Your task to perform on an android device: Search for Italian restaurants on Maps Image 0: 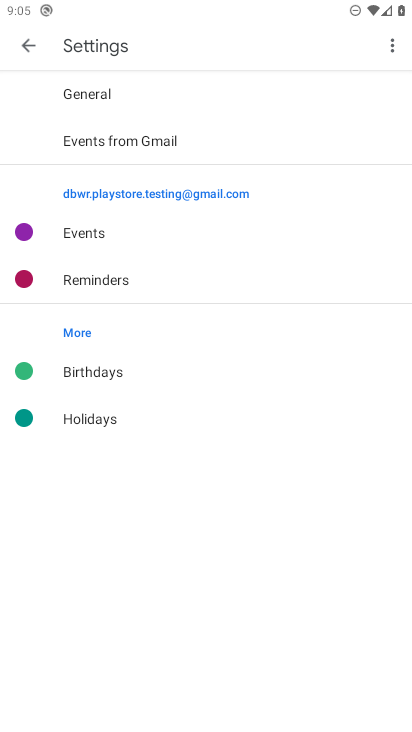
Step 0: press home button
Your task to perform on an android device: Search for Italian restaurants on Maps Image 1: 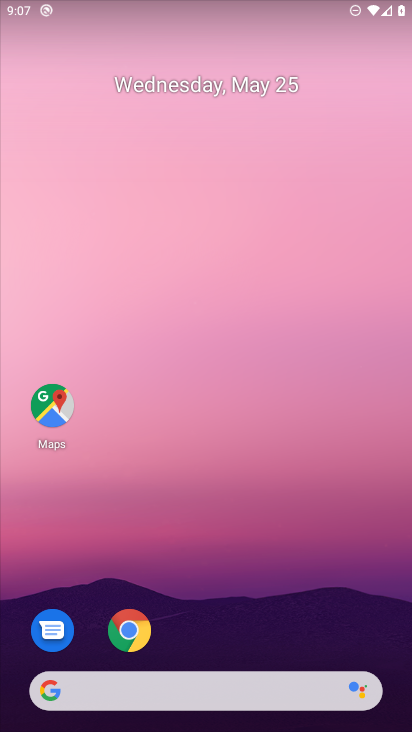
Step 1: click (56, 402)
Your task to perform on an android device: Search for Italian restaurants on Maps Image 2: 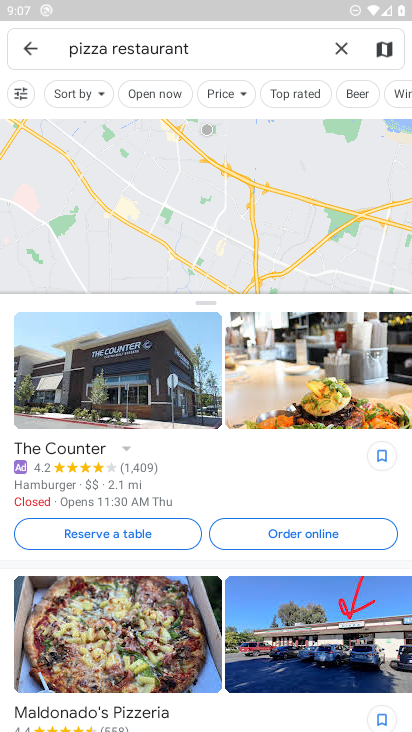
Step 2: click (340, 48)
Your task to perform on an android device: Search for Italian restaurants on Maps Image 3: 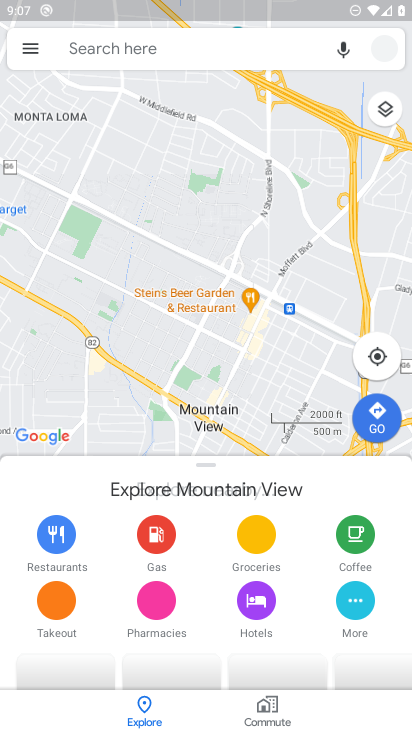
Step 3: click (126, 46)
Your task to perform on an android device: Search for Italian restaurants on Maps Image 4: 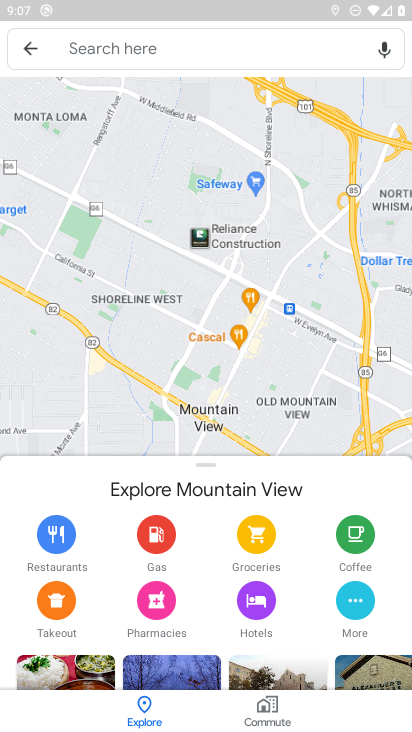
Step 4: drag from (161, 633) to (234, 277)
Your task to perform on an android device: Search for Italian restaurants on Maps Image 5: 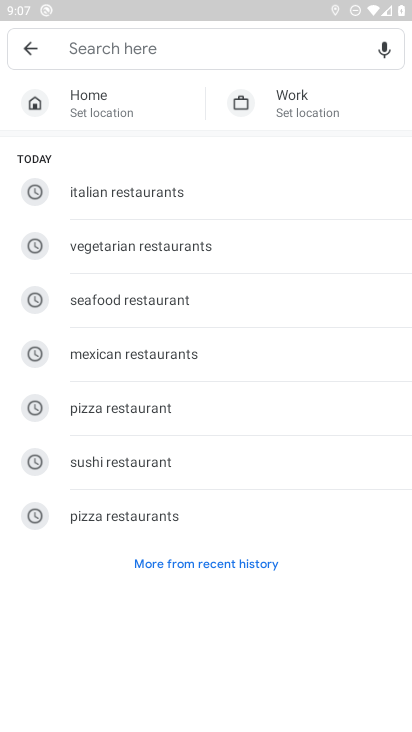
Step 5: click (142, 201)
Your task to perform on an android device: Search for Italian restaurants on Maps Image 6: 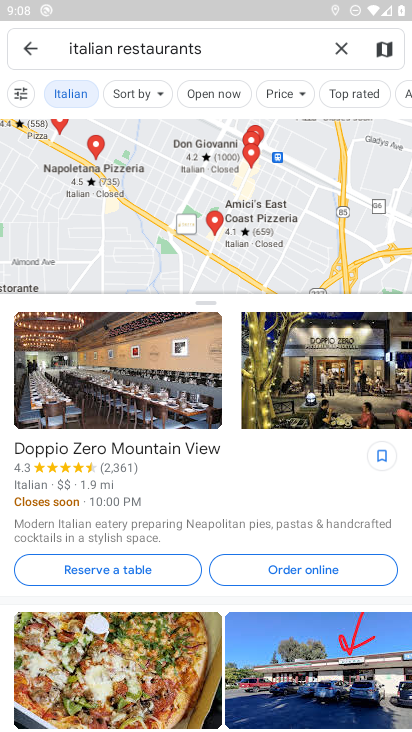
Step 6: task complete